Your task to perform on an android device: Is it going to rain today? Image 0: 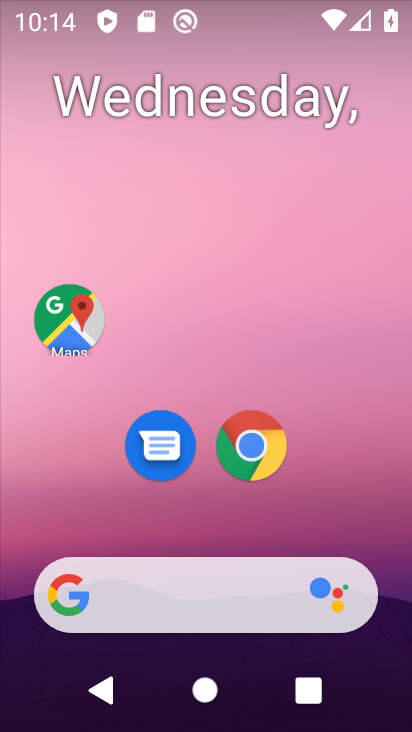
Step 0: click (145, 594)
Your task to perform on an android device: Is it going to rain today? Image 1: 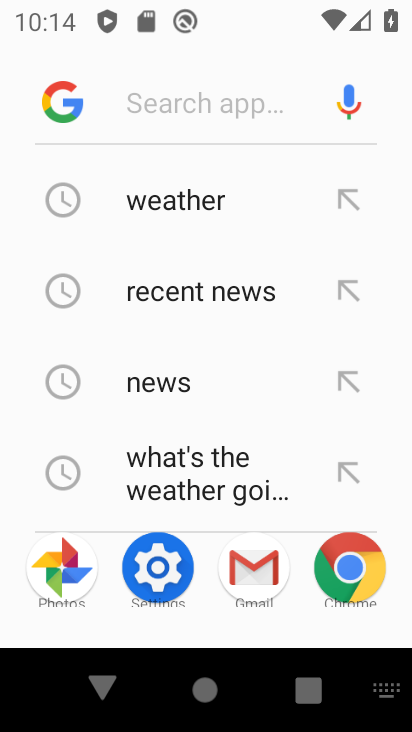
Step 1: click (189, 211)
Your task to perform on an android device: Is it going to rain today? Image 2: 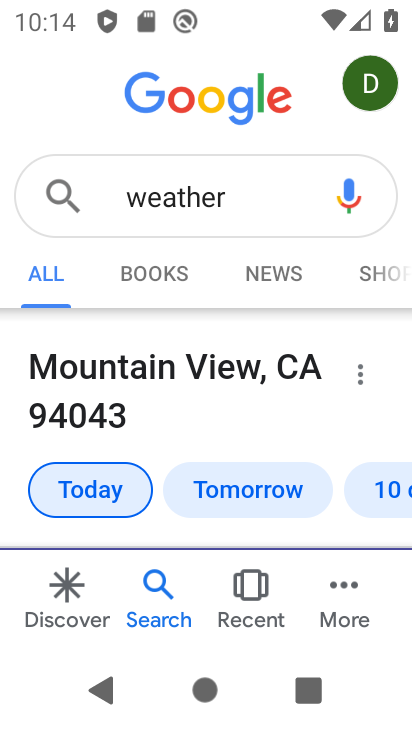
Step 2: task complete